Your task to perform on an android device: add a contact in the contacts app Image 0: 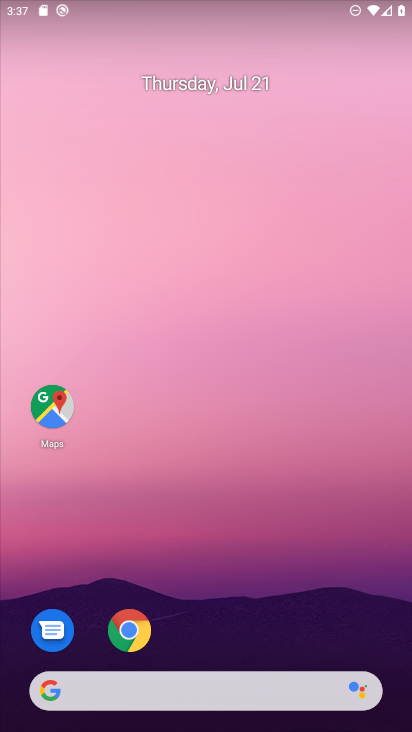
Step 0: drag from (216, 648) to (328, 19)
Your task to perform on an android device: add a contact in the contacts app Image 1: 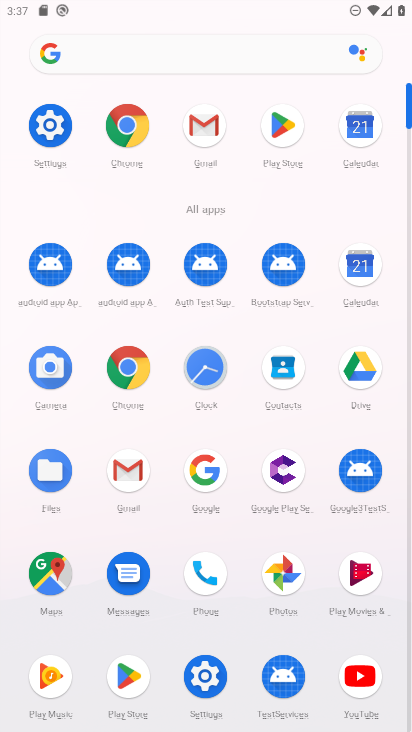
Step 1: click (210, 584)
Your task to perform on an android device: add a contact in the contacts app Image 2: 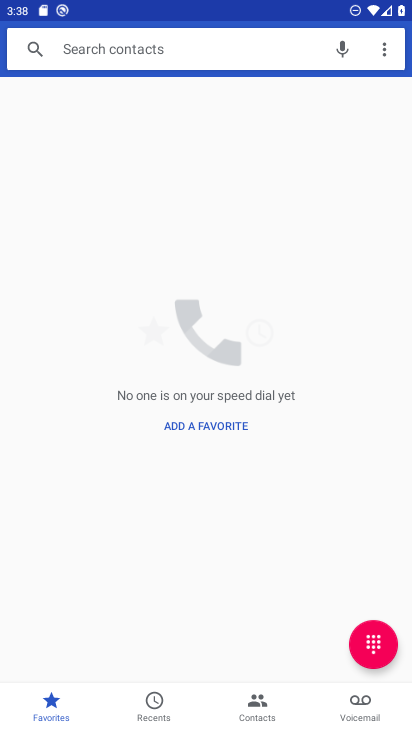
Step 2: click (265, 696)
Your task to perform on an android device: add a contact in the contacts app Image 3: 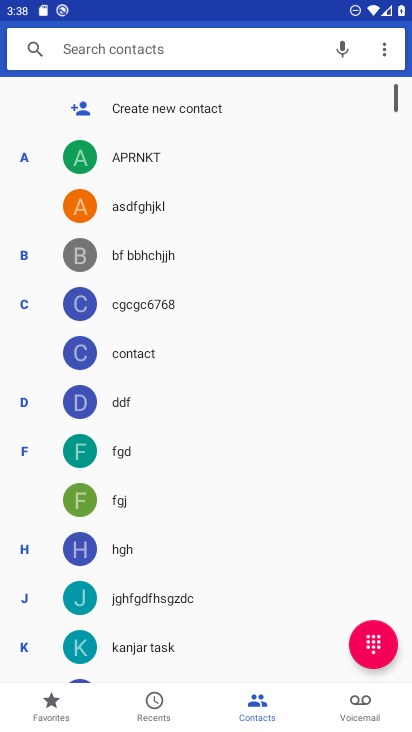
Step 3: click (169, 101)
Your task to perform on an android device: add a contact in the contacts app Image 4: 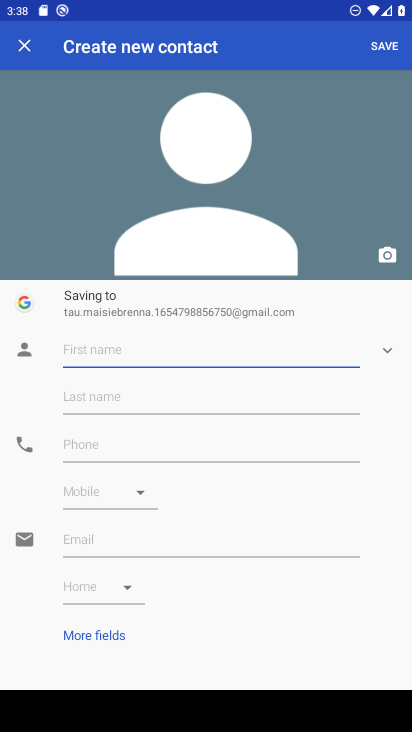
Step 4: type "nbbj"
Your task to perform on an android device: add a contact in the contacts app Image 5: 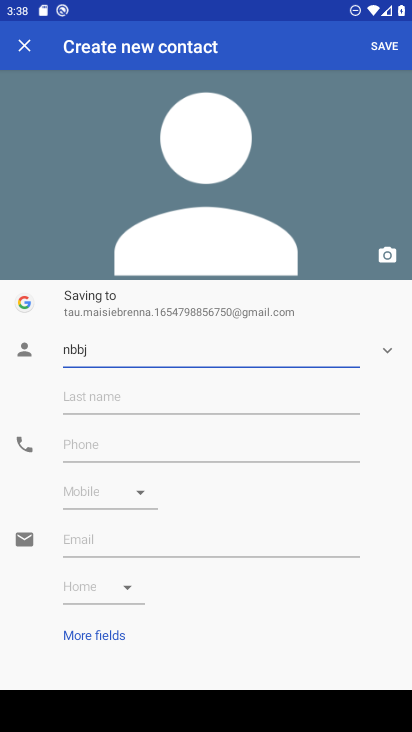
Step 5: click (137, 448)
Your task to perform on an android device: add a contact in the contacts app Image 6: 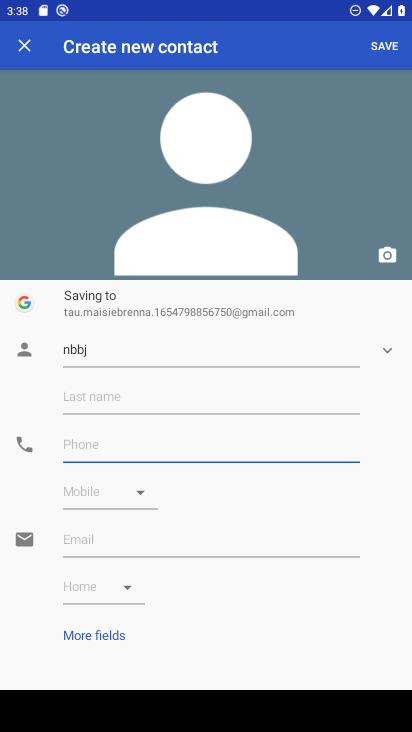
Step 6: type "890"
Your task to perform on an android device: add a contact in the contacts app Image 7: 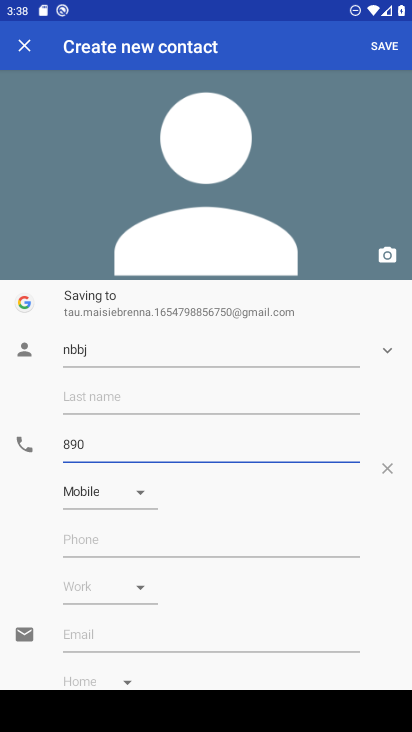
Step 7: click (387, 47)
Your task to perform on an android device: add a contact in the contacts app Image 8: 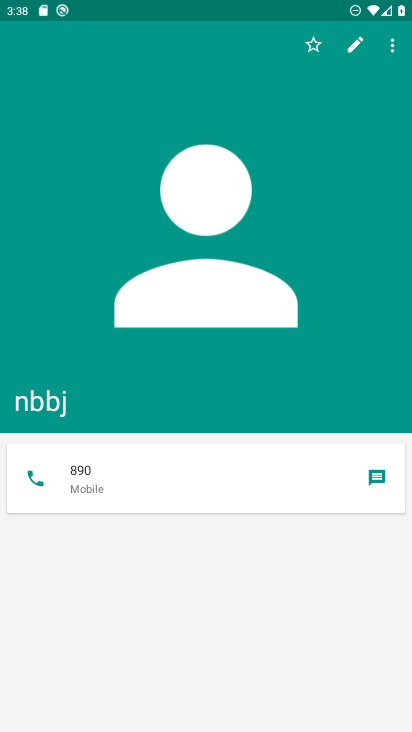
Step 8: task complete